Your task to perform on an android device: Go to ESPN.com Image 0: 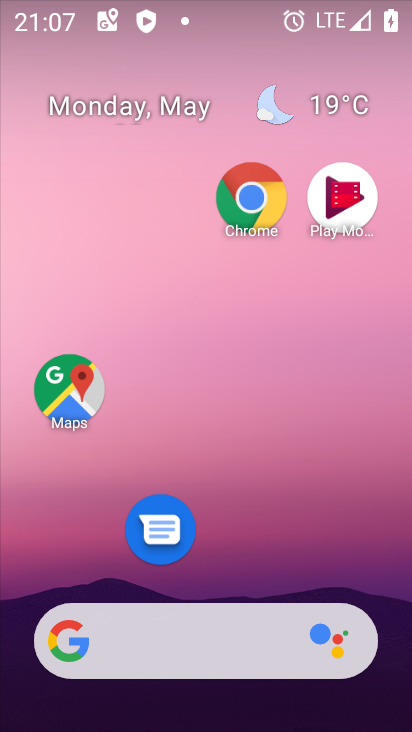
Step 0: click (252, 209)
Your task to perform on an android device: Go to ESPN.com Image 1: 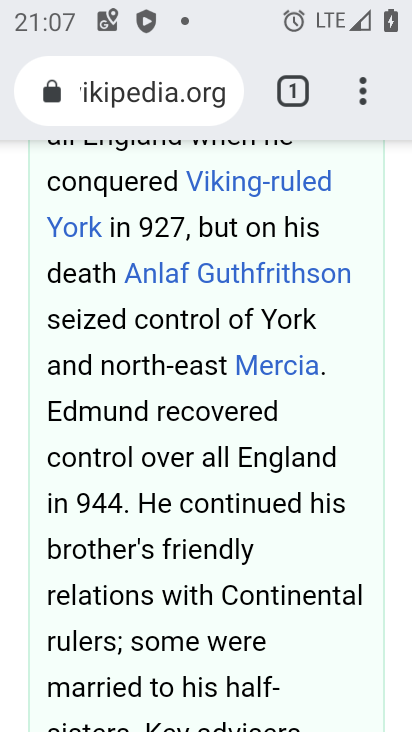
Step 1: press back button
Your task to perform on an android device: Go to ESPN.com Image 2: 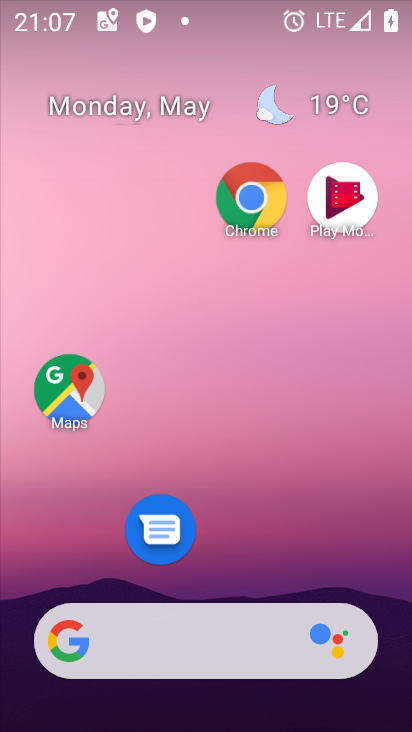
Step 2: click (253, 207)
Your task to perform on an android device: Go to ESPN.com Image 3: 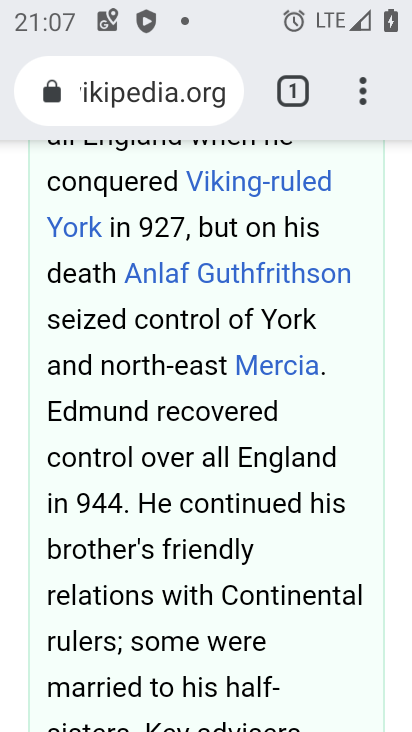
Step 3: click (162, 100)
Your task to perform on an android device: Go to ESPN.com Image 4: 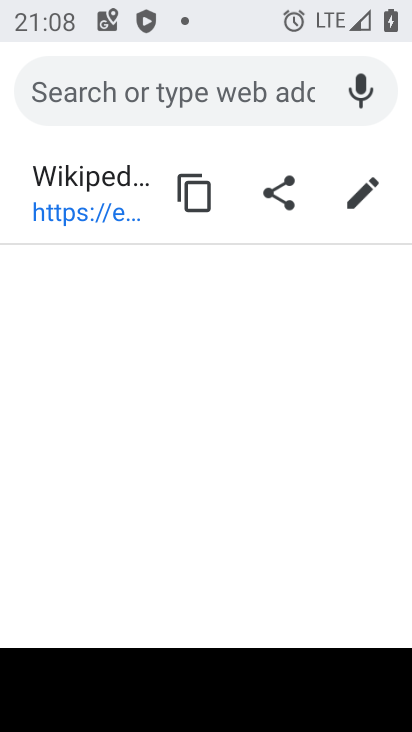
Step 4: type "www.espn.com"
Your task to perform on an android device: Go to ESPN.com Image 5: 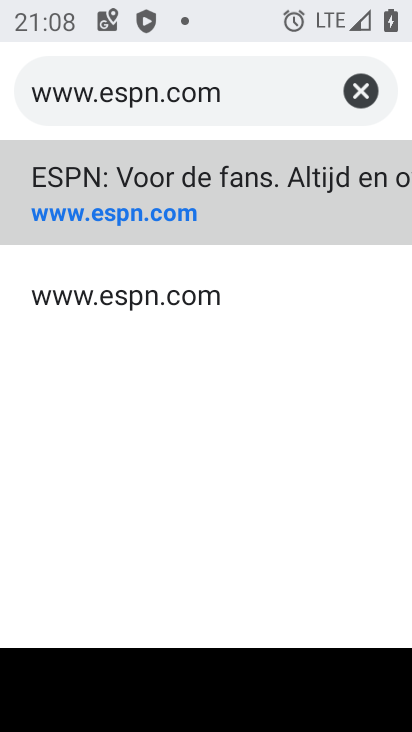
Step 5: click (37, 230)
Your task to perform on an android device: Go to ESPN.com Image 6: 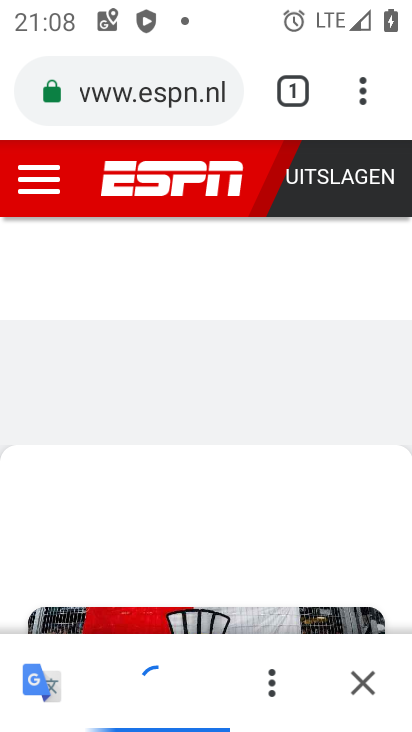
Step 6: click (364, 688)
Your task to perform on an android device: Go to ESPN.com Image 7: 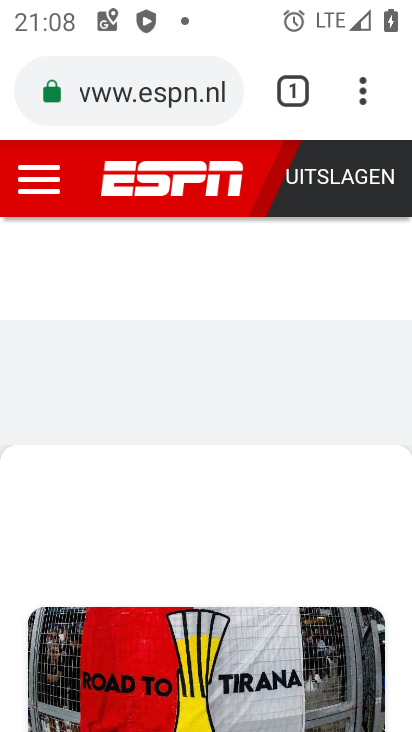
Step 7: task complete